Your task to perform on an android device: Empty the shopping cart on bestbuy. Search for "razer blade" on bestbuy, select the first entry, add it to the cart, then select checkout. Image 0: 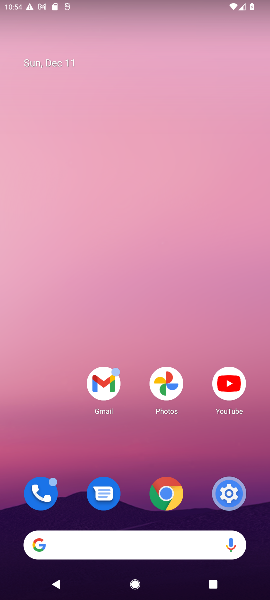
Step 0: press home button
Your task to perform on an android device: Empty the shopping cart on bestbuy. Search for "razer blade" on bestbuy, select the first entry, add it to the cart, then select checkout. Image 1: 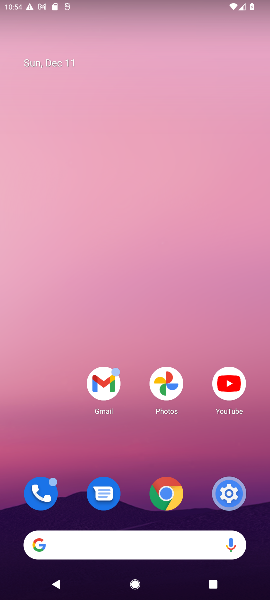
Step 1: click (175, 551)
Your task to perform on an android device: Empty the shopping cart on bestbuy. Search for "razer blade" on bestbuy, select the first entry, add it to the cart, then select checkout. Image 2: 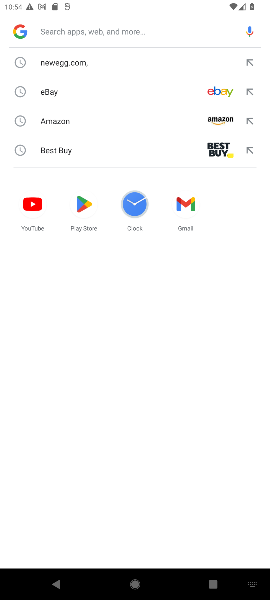
Step 2: type "bestbuy"
Your task to perform on an android device: Empty the shopping cart on bestbuy. Search for "razer blade" on bestbuy, select the first entry, add it to the cart, then select checkout. Image 3: 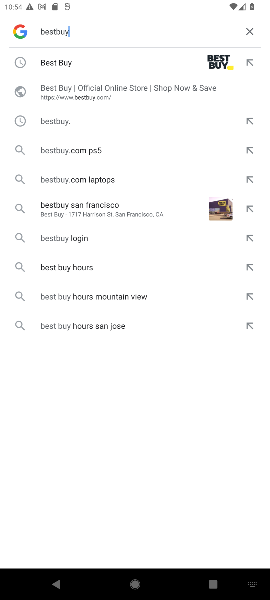
Step 3: click (88, 71)
Your task to perform on an android device: Empty the shopping cart on bestbuy. Search for "razer blade" on bestbuy, select the first entry, add it to the cart, then select checkout. Image 4: 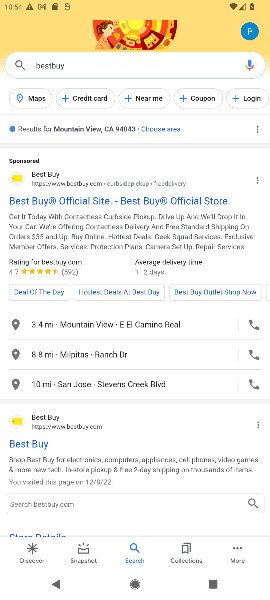
Step 4: click (110, 201)
Your task to perform on an android device: Empty the shopping cart on bestbuy. Search for "razer blade" on bestbuy, select the first entry, add it to the cart, then select checkout. Image 5: 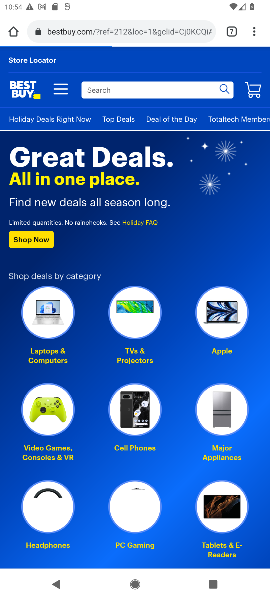
Step 5: click (181, 91)
Your task to perform on an android device: Empty the shopping cart on bestbuy. Search for "razer blade" on bestbuy, select the first entry, add it to the cart, then select checkout. Image 6: 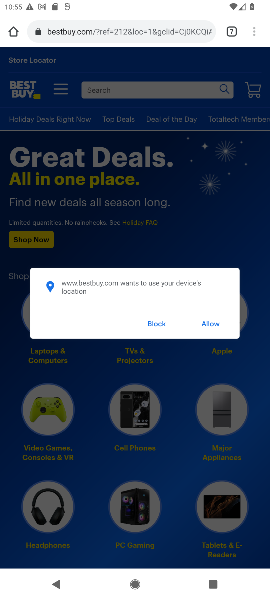
Step 6: type "razer blade"
Your task to perform on an android device: Empty the shopping cart on bestbuy. Search for "razer blade" on bestbuy, select the first entry, add it to the cart, then select checkout. Image 7: 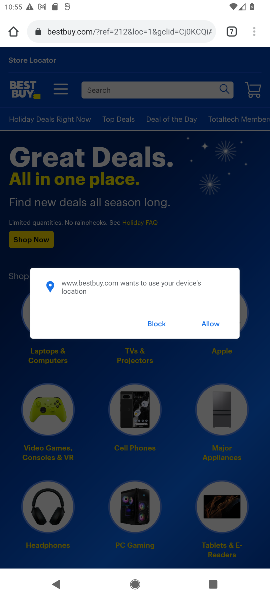
Step 7: click (212, 320)
Your task to perform on an android device: Empty the shopping cart on bestbuy. Search for "razer blade" on bestbuy, select the first entry, add it to the cart, then select checkout. Image 8: 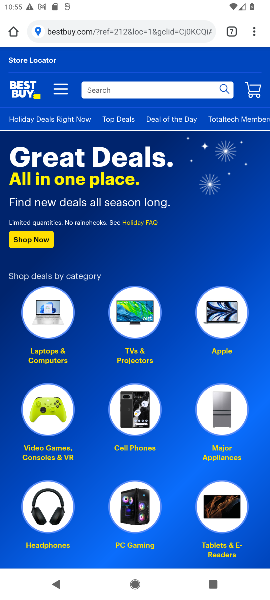
Step 8: click (143, 90)
Your task to perform on an android device: Empty the shopping cart on bestbuy. Search for "razer blade" on bestbuy, select the first entry, add it to the cart, then select checkout. Image 9: 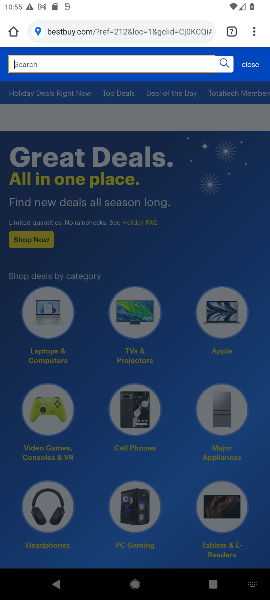
Step 9: type "razer blade"
Your task to perform on an android device: Empty the shopping cart on bestbuy. Search for "razer blade" on bestbuy, select the first entry, add it to the cart, then select checkout. Image 10: 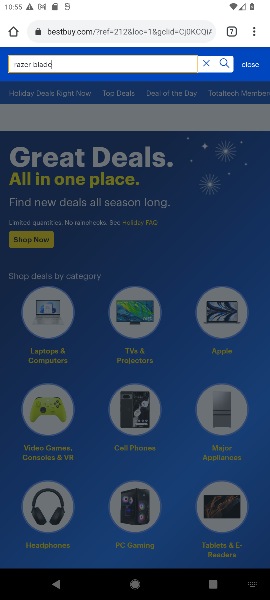
Step 10: click (226, 59)
Your task to perform on an android device: Empty the shopping cart on bestbuy. Search for "razer blade" on bestbuy, select the first entry, add it to the cart, then select checkout. Image 11: 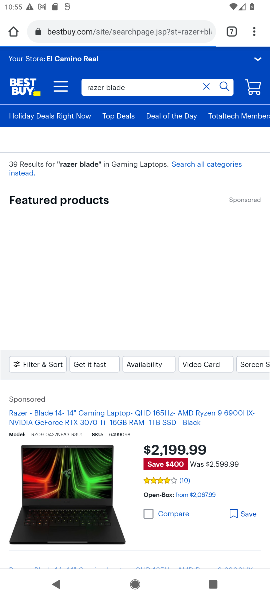
Step 11: drag from (107, 515) to (107, 302)
Your task to perform on an android device: Empty the shopping cart on bestbuy. Search for "razer blade" on bestbuy, select the first entry, add it to the cart, then select checkout. Image 12: 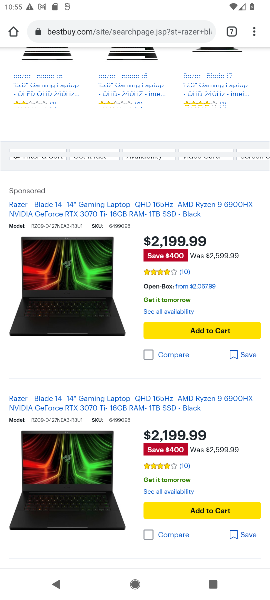
Step 12: click (205, 240)
Your task to perform on an android device: Empty the shopping cart on bestbuy. Search for "razer blade" on bestbuy, select the first entry, add it to the cart, then select checkout. Image 13: 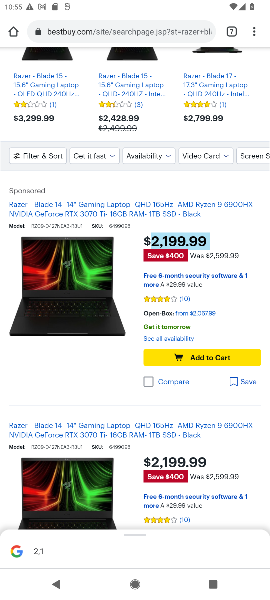
Step 13: click (211, 326)
Your task to perform on an android device: Empty the shopping cart on bestbuy. Search for "razer blade" on bestbuy, select the first entry, add it to the cart, then select checkout. Image 14: 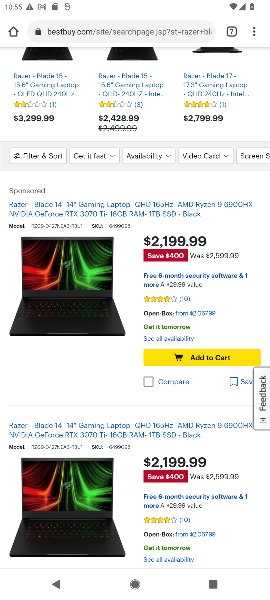
Step 14: task complete